Your task to perform on an android device: toggle airplane mode Image 0: 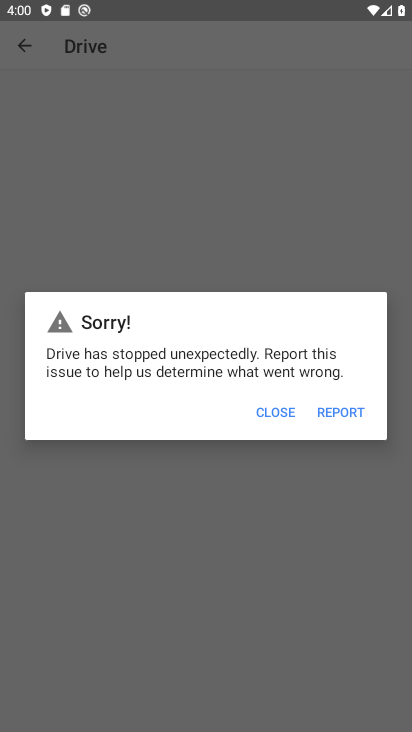
Step 0: click (127, 627)
Your task to perform on an android device: toggle airplane mode Image 1: 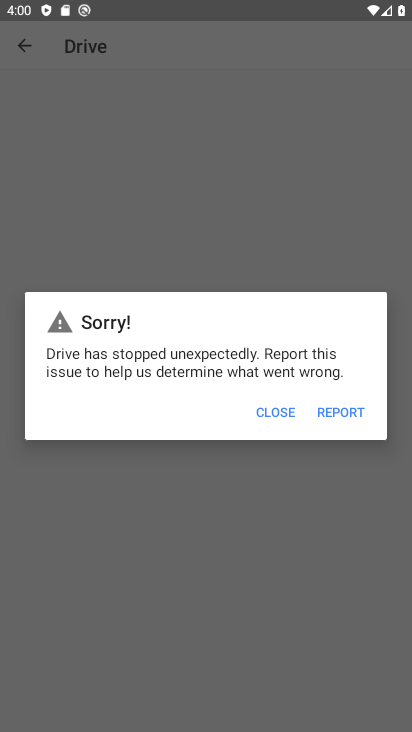
Step 1: press home button
Your task to perform on an android device: toggle airplane mode Image 2: 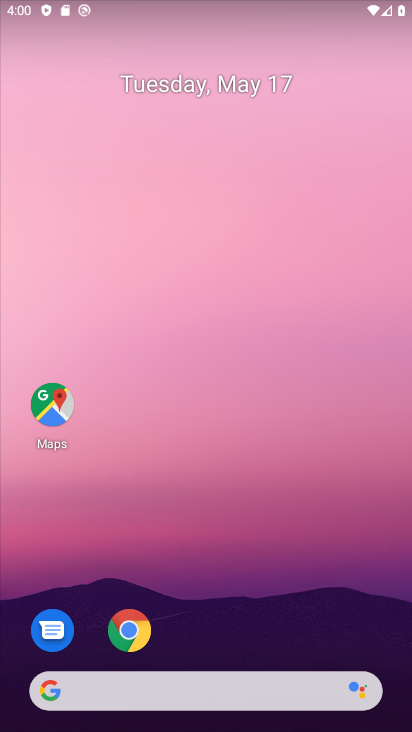
Step 2: drag from (206, 727) to (249, 186)
Your task to perform on an android device: toggle airplane mode Image 3: 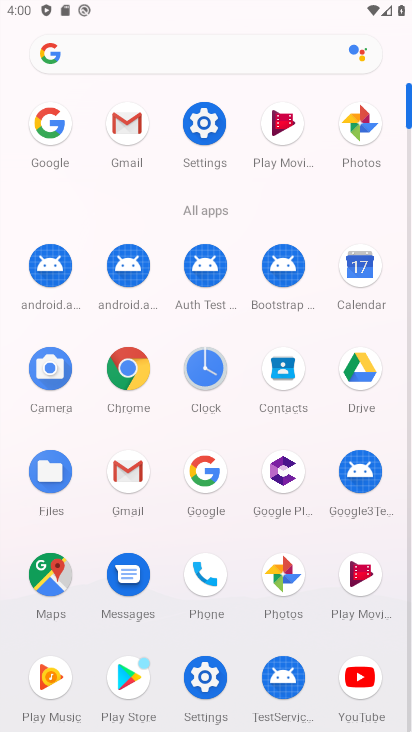
Step 3: click (206, 122)
Your task to perform on an android device: toggle airplane mode Image 4: 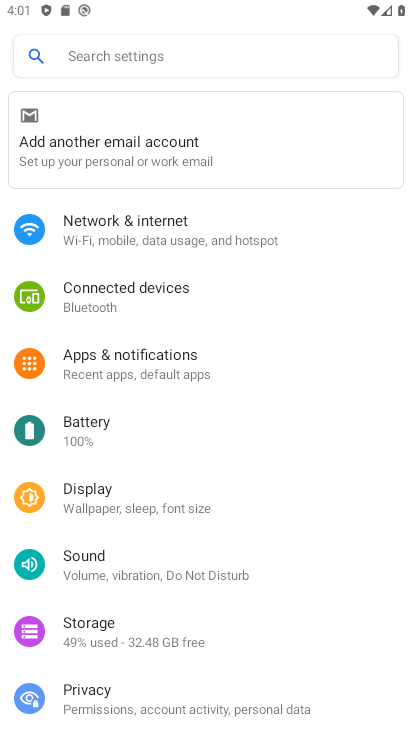
Step 4: click (127, 223)
Your task to perform on an android device: toggle airplane mode Image 5: 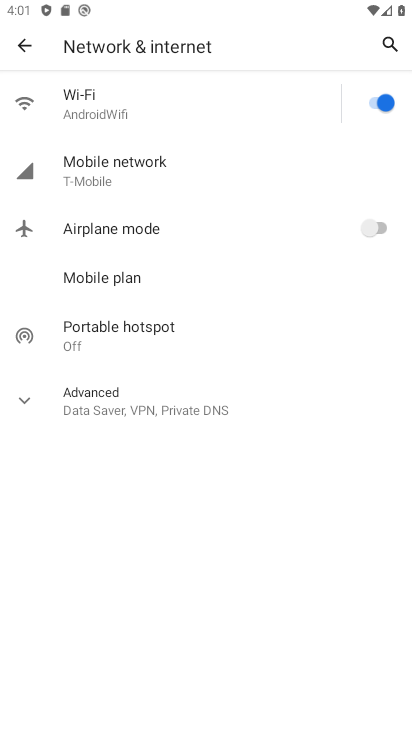
Step 5: click (381, 229)
Your task to perform on an android device: toggle airplane mode Image 6: 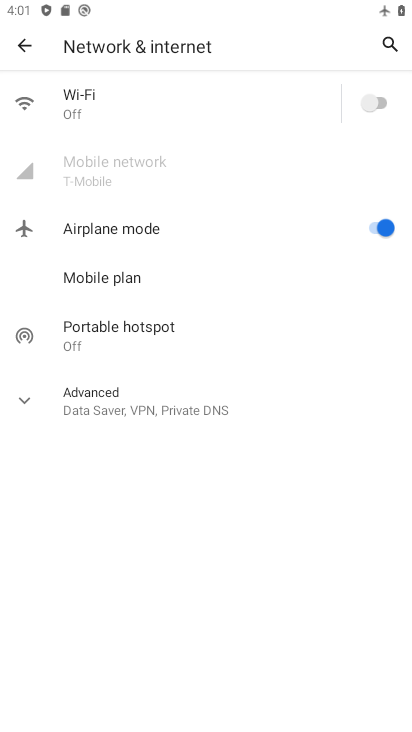
Step 6: task complete